Your task to perform on an android device: open a bookmark in the chrome app Image 0: 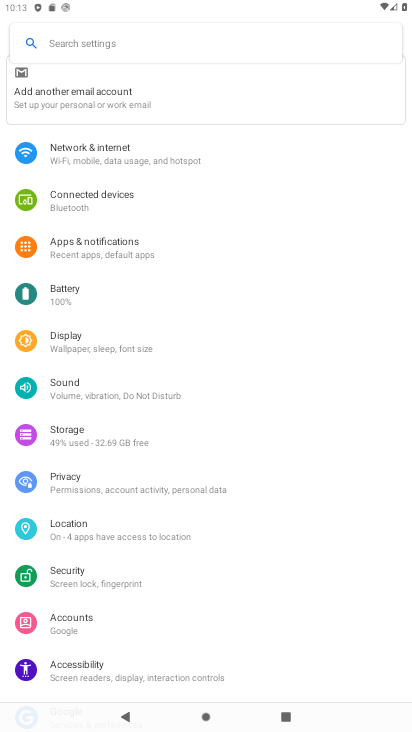
Step 0: press home button
Your task to perform on an android device: open a bookmark in the chrome app Image 1: 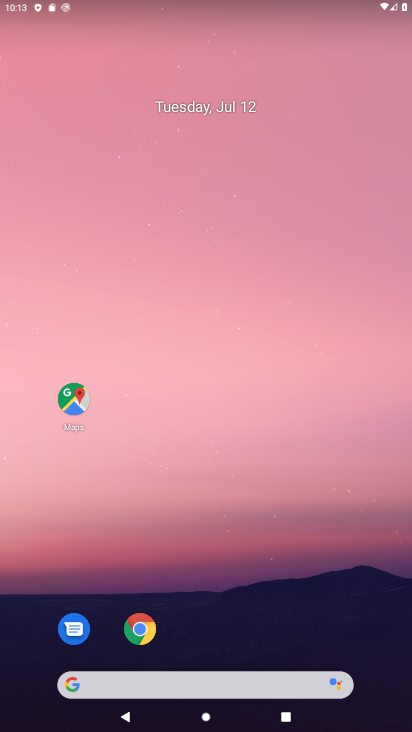
Step 1: drag from (265, 603) to (235, 232)
Your task to perform on an android device: open a bookmark in the chrome app Image 2: 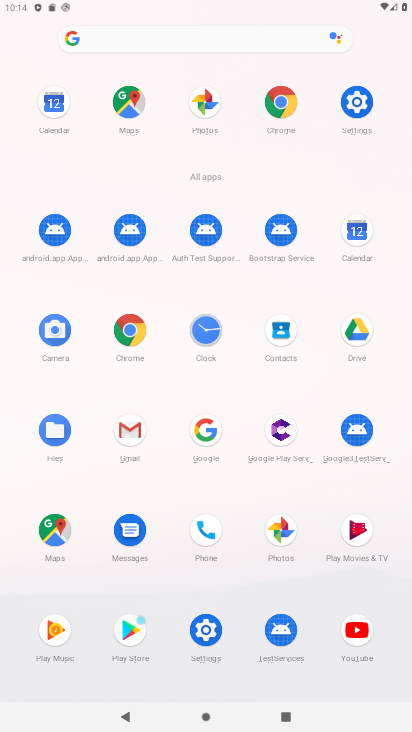
Step 2: click (137, 322)
Your task to perform on an android device: open a bookmark in the chrome app Image 3: 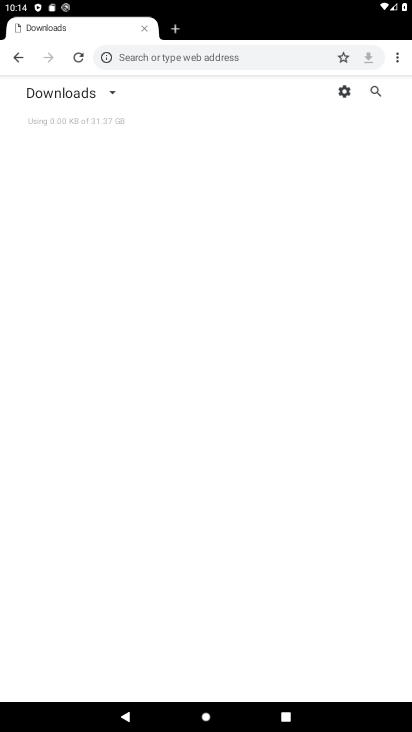
Step 3: click (399, 58)
Your task to perform on an android device: open a bookmark in the chrome app Image 4: 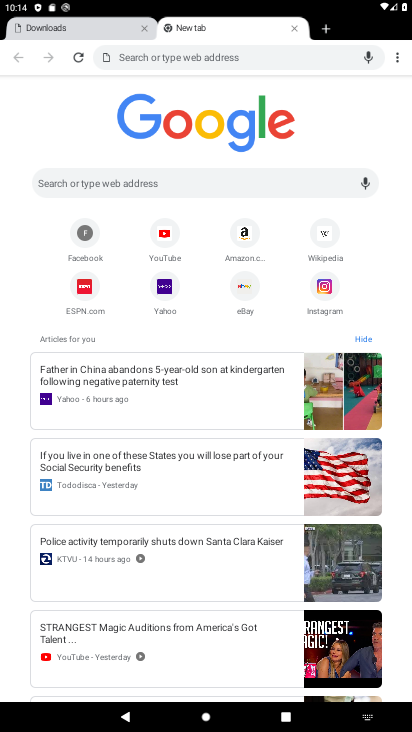
Step 4: click (400, 61)
Your task to perform on an android device: open a bookmark in the chrome app Image 5: 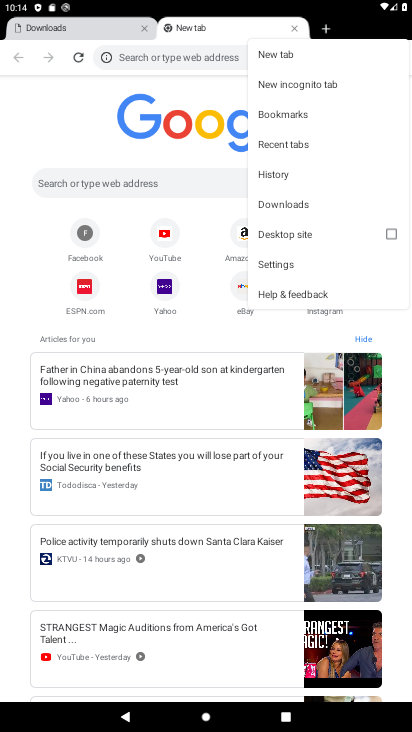
Step 5: click (278, 113)
Your task to perform on an android device: open a bookmark in the chrome app Image 6: 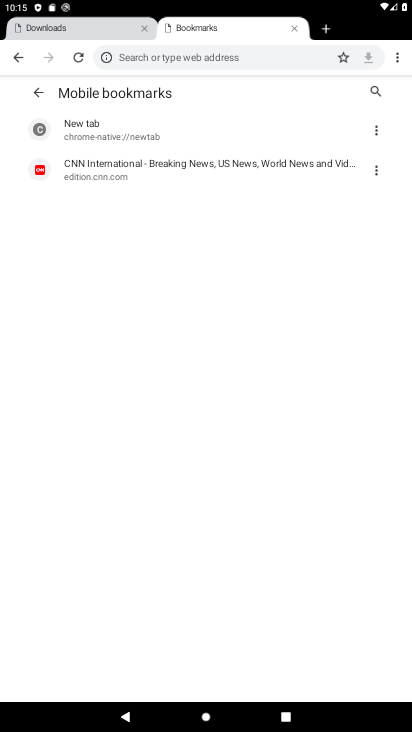
Step 6: click (205, 164)
Your task to perform on an android device: open a bookmark in the chrome app Image 7: 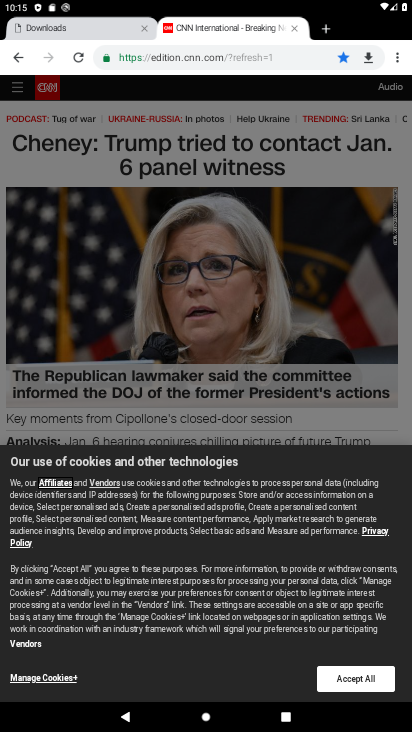
Step 7: task complete